Your task to perform on an android device: turn on wifi Image 0: 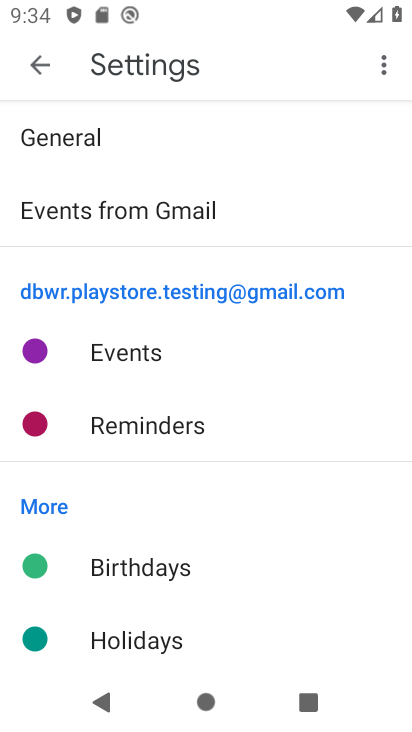
Step 0: click (100, 704)
Your task to perform on an android device: turn on wifi Image 1: 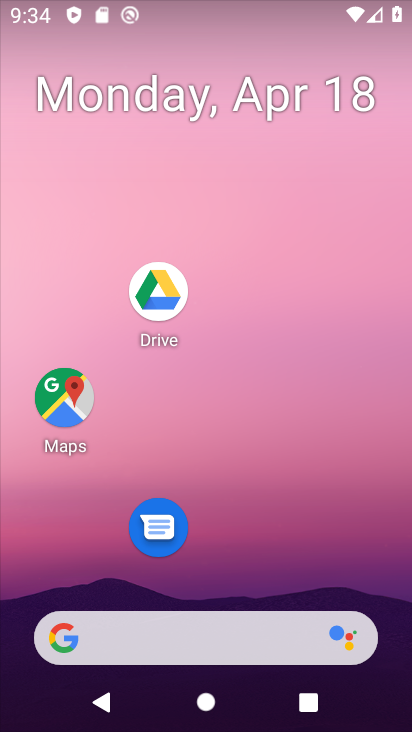
Step 1: drag from (282, 579) to (164, 19)
Your task to perform on an android device: turn on wifi Image 2: 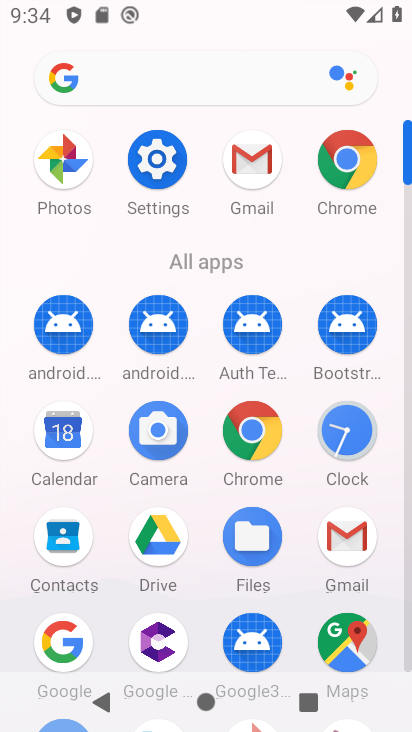
Step 2: click (180, 199)
Your task to perform on an android device: turn on wifi Image 3: 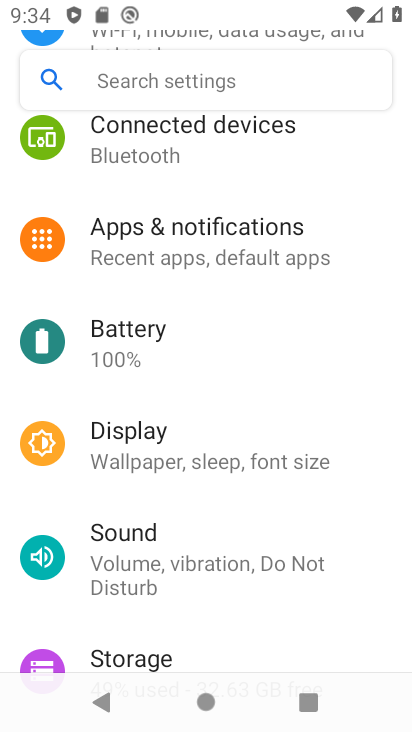
Step 3: drag from (258, 223) to (212, 370)
Your task to perform on an android device: turn on wifi Image 4: 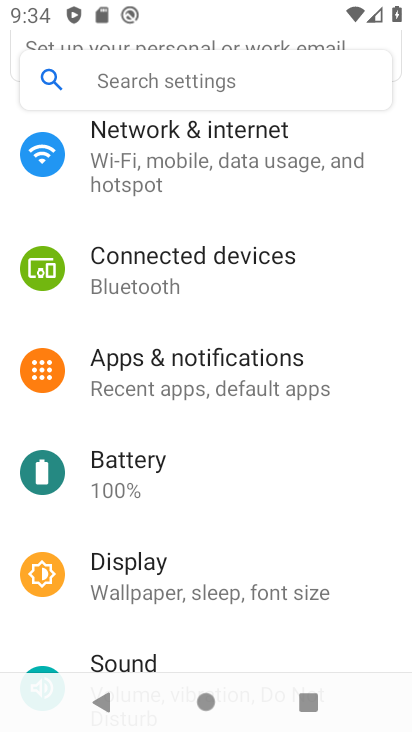
Step 4: click (252, 147)
Your task to perform on an android device: turn on wifi Image 5: 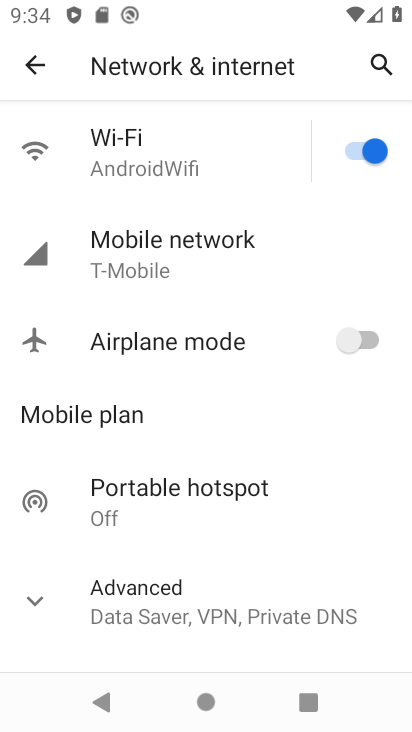
Step 5: task complete